Your task to perform on an android device: Open the web browser Image 0: 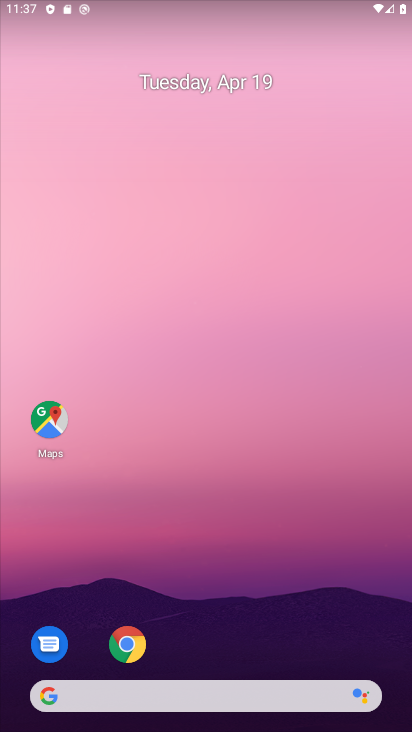
Step 0: click (128, 636)
Your task to perform on an android device: Open the web browser Image 1: 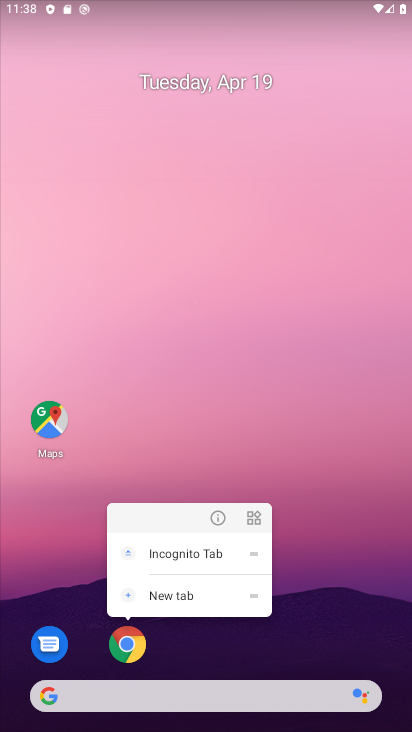
Step 1: drag from (298, 628) to (344, 71)
Your task to perform on an android device: Open the web browser Image 2: 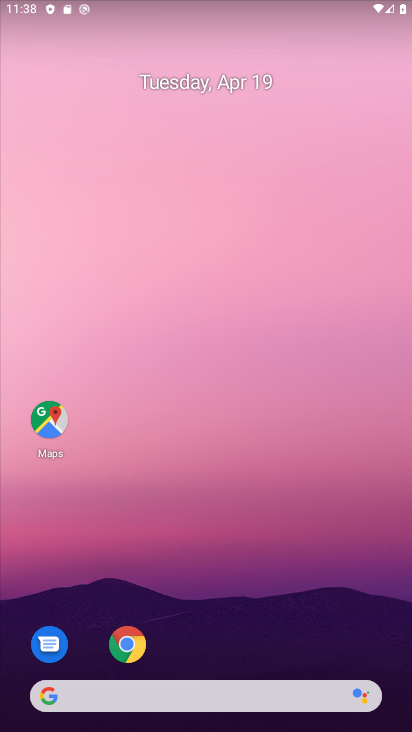
Step 2: drag from (182, 607) to (219, 106)
Your task to perform on an android device: Open the web browser Image 3: 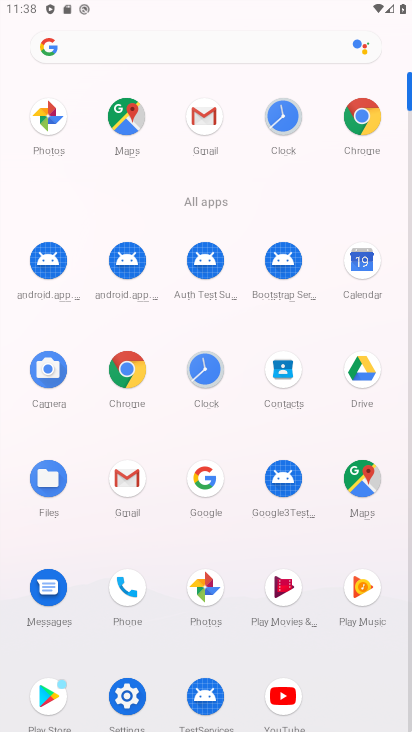
Step 3: click (126, 365)
Your task to perform on an android device: Open the web browser Image 4: 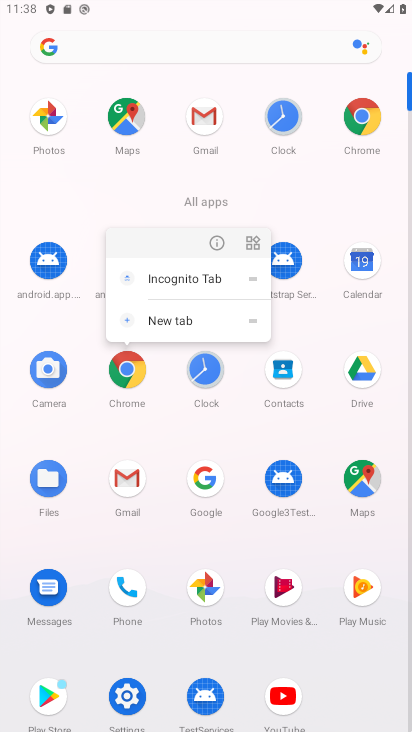
Step 4: click (126, 365)
Your task to perform on an android device: Open the web browser Image 5: 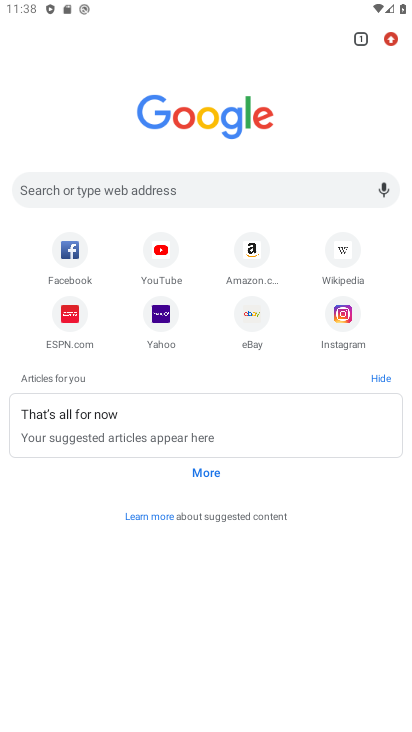
Step 5: click (239, 188)
Your task to perform on an android device: Open the web browser Image 6: 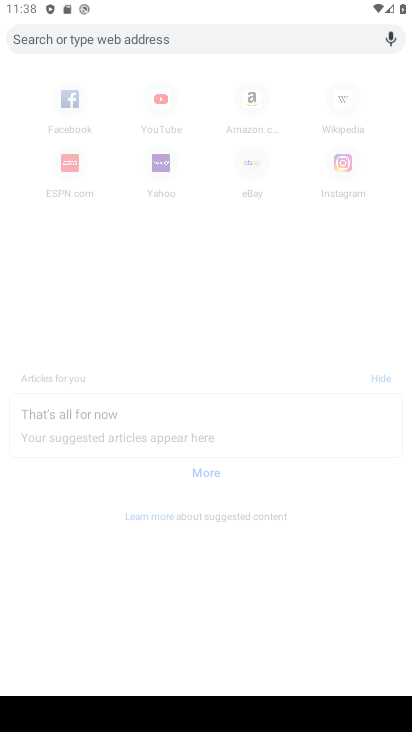
Step 6: task complete